Your task to perform on an android device: Open display settings Image 0: 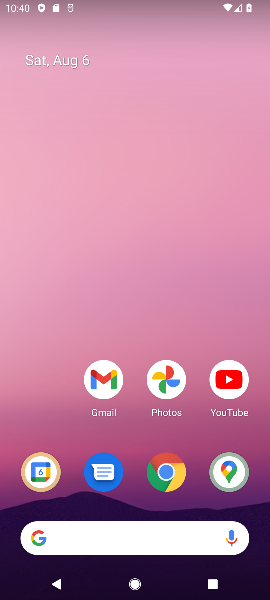
Step 0: drag from (156, 551) to (29, 18)
Your task to perform on an android device: Open display settings Image 1: 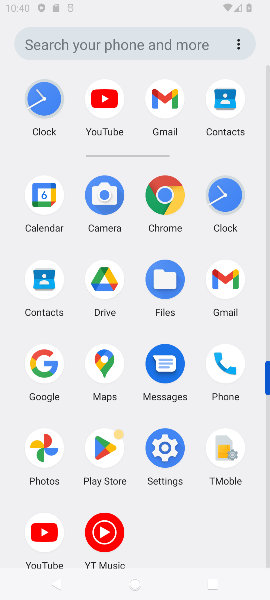
Step 1: drag from (131, 370) to (99, 34)
Your task to perform on an android device: Open display settings Image 2: 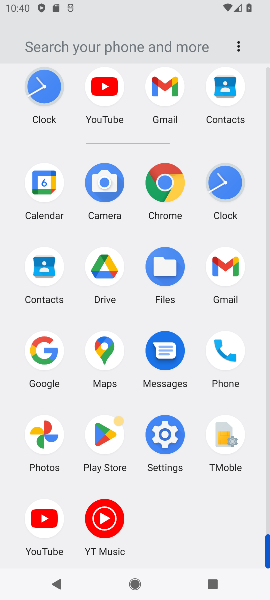
Step 2: click (156, 426)
Your task to perform on an android device: Open display settings Image 3: 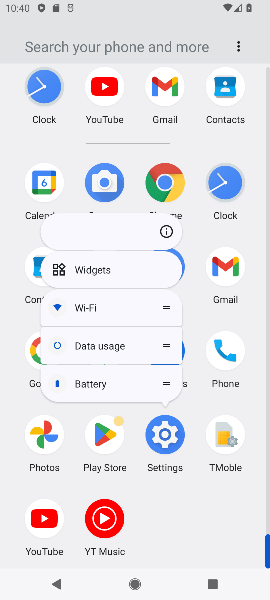
Step 3: click (156, 436)
Your task to perform on an android device: Open display settings Image 4: 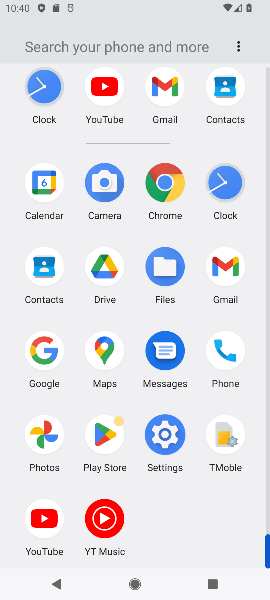
Step 4: click (163, 437)
Your task to perform on an android device: Open display settings Image 5: 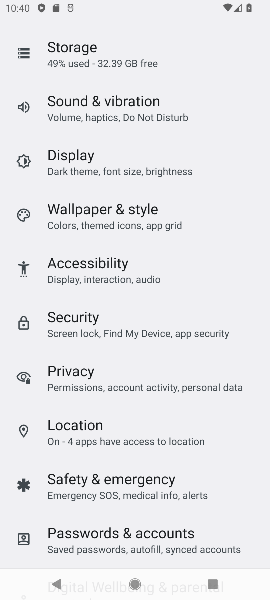
Step 5: click (68, 164)
Your task to perform on an android device: Open display settings Image 6: 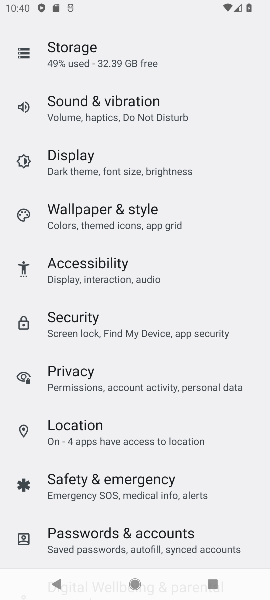
Step 6: click (68, 164)
Your task to perform on an android device: Open display settings Image 7: 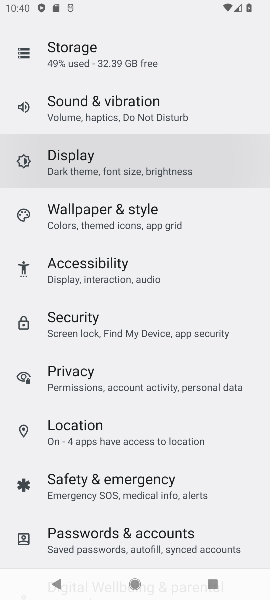
Step 7: click (68, 164)
Your task to perform on an android device: Open display settings Image 8: 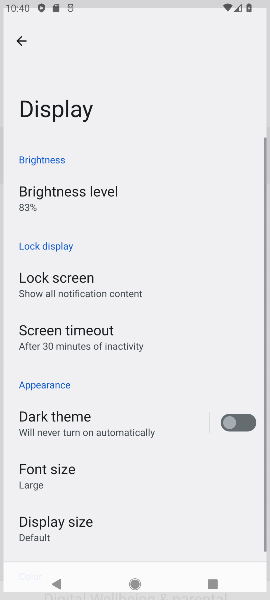
Step 8: click (68, 164)
Your task to perform on an android device: Open display settings Image 9: 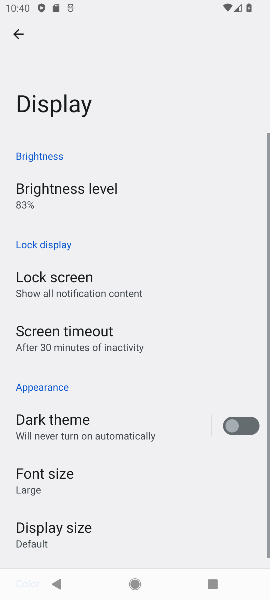
Step 9: click (73, 161)
Your task to perform on an android device: Open display settings Image 10: 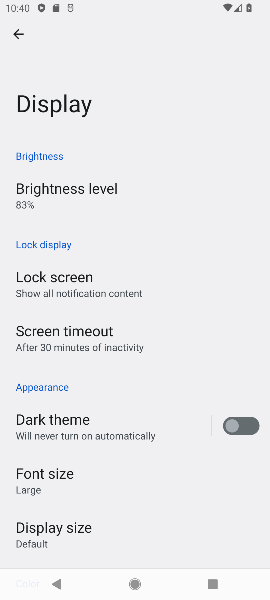
Step 10: task complete